Your task to perform on an android device: Open calendar and show me the third week of next month Image 0: 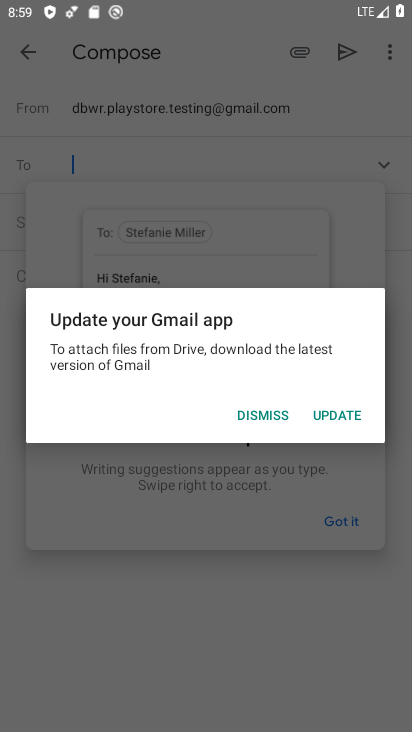
Step 0: press home button
Your task to perform on an android device: Open calendar and show me the third week of next month Image 1: 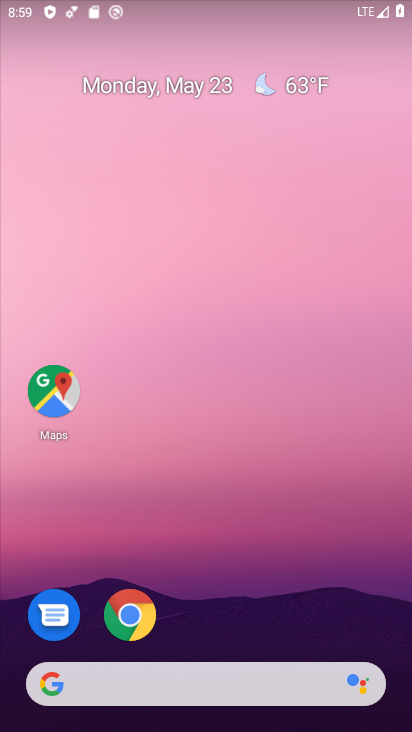
Step 1: drag from (252, 616) to (282, 99)
Your task to perform on an android device: Open calendar and show me the third week of next month Image 2: 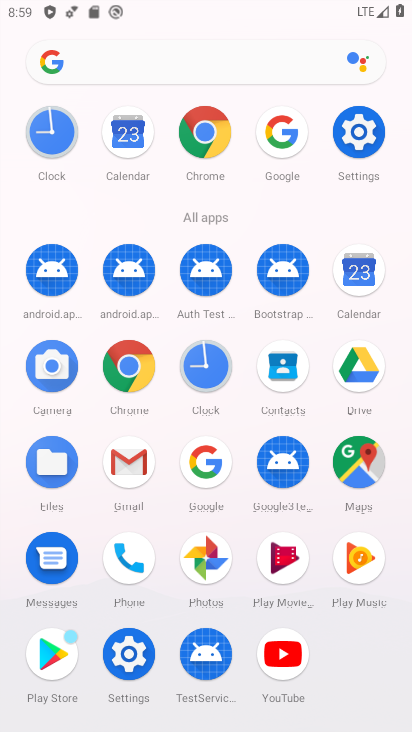
Step 2: click (365, 268)
Your task to perform on an android device: Open calendar and show me the third week of next month Image 3: 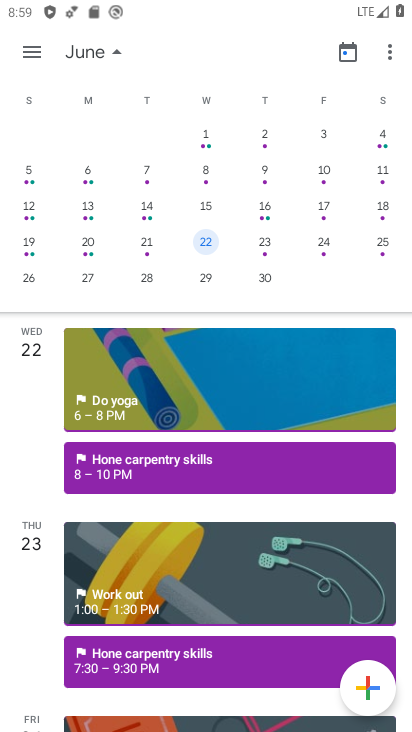
Step 3: click (204, 204)
Your task to perform on an android device: Open calendar and show me the third week of next month Image 4: 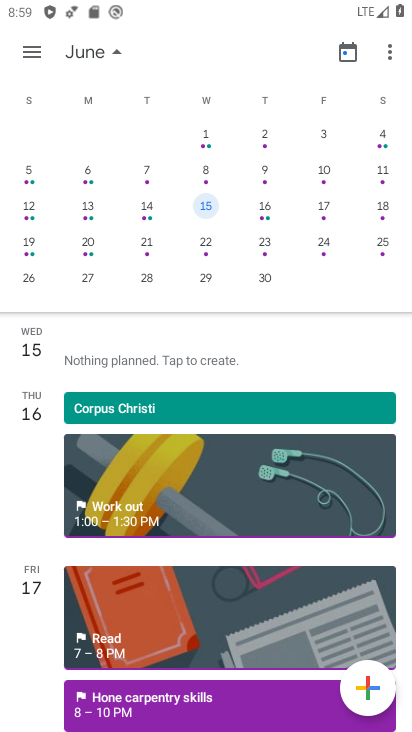
Step 4: task complete